Your task to perform on an android device: turn smart compose on in the gmail app Image 0: 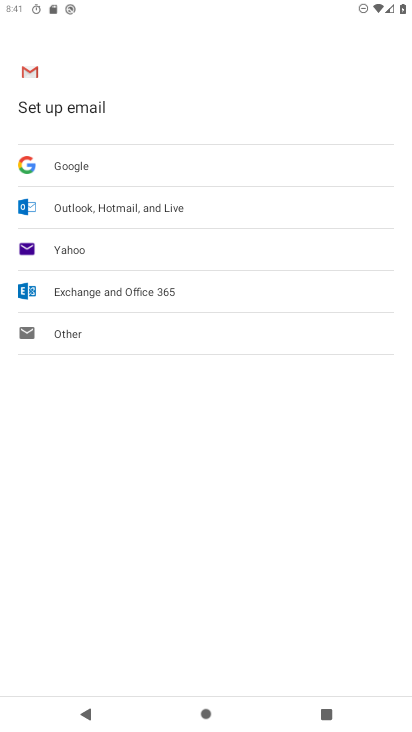
Step 0: press home button
Your task to perform on an android device: turn smart compose on in the gmail app Image 1: 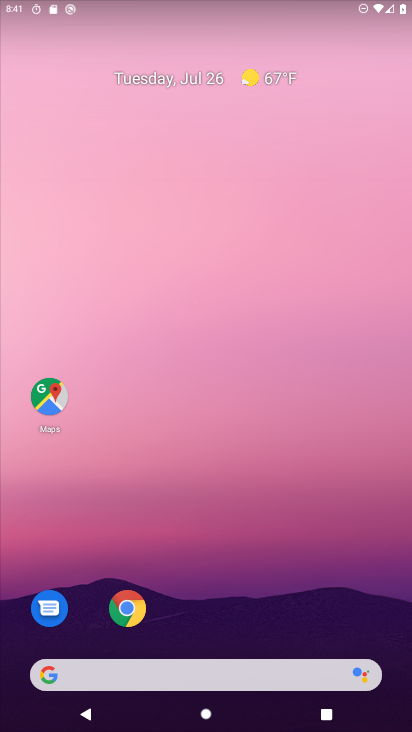
Step 1: drag from (223, 630) to (226, 158)
Your task to perform on an android device: turn smart compose on in the gmail app Image 2: 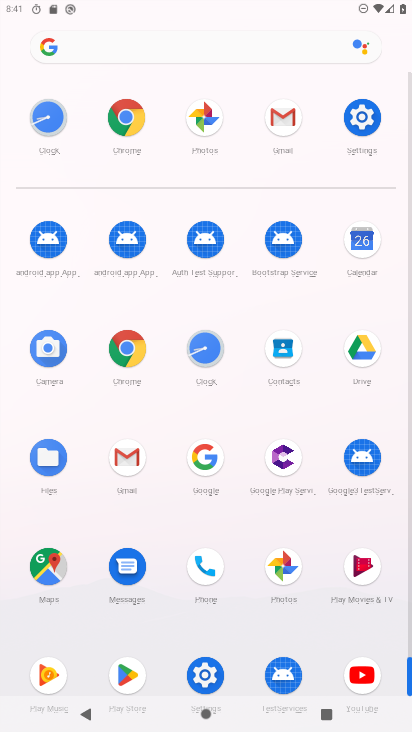
Step 2: click (135, 473)
Your task to perform on an android device: turn smart compose on in the gmail app Image 3: 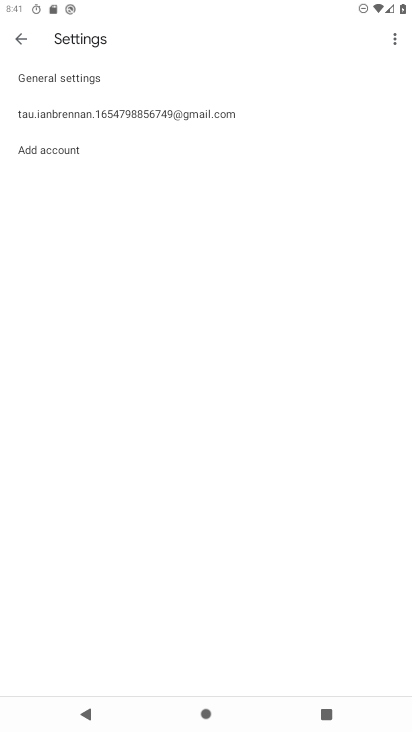
Step 3: click (90, 114)
Your task to perform on an android device: turn smart compose on in the gmail app Image 4: 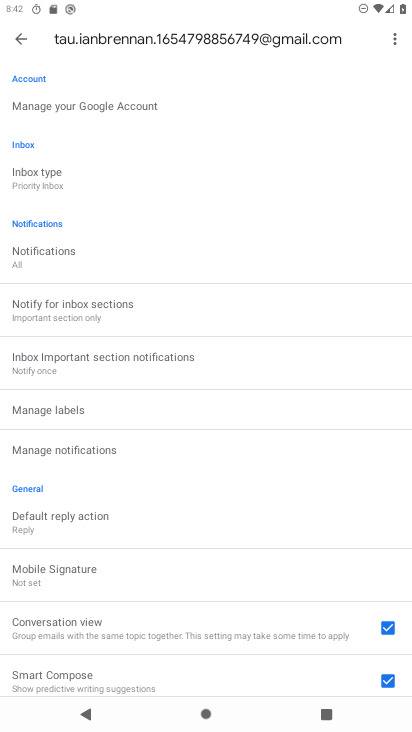
Step 4: task complete